Your task to perform on an android device: add a label to a message in the gmail app Image 0: 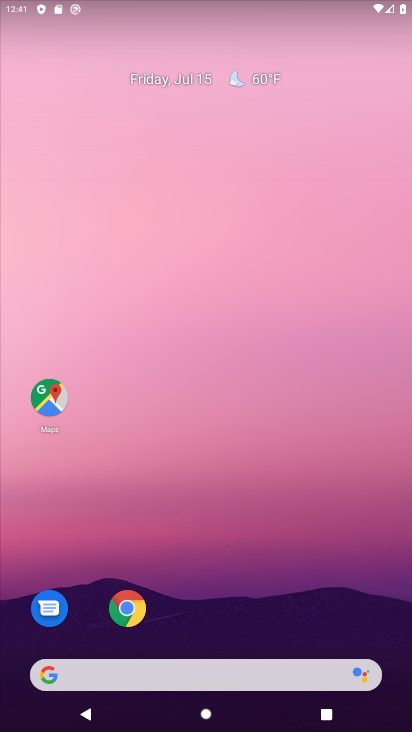
Step 0: drag from (285, 591) to (275, 65)
Your task to perform on an android device: add a label to a message in the gmail app Image 1: 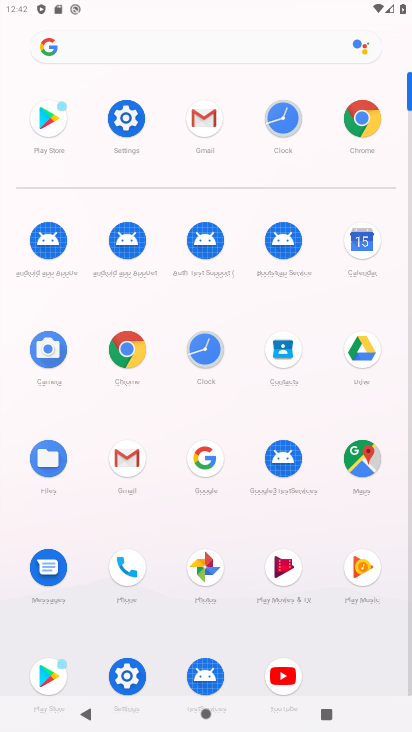
Step 1: click (124, 451)
Your task to perform on an android device: add a label to a message in the gmail app Image 2: 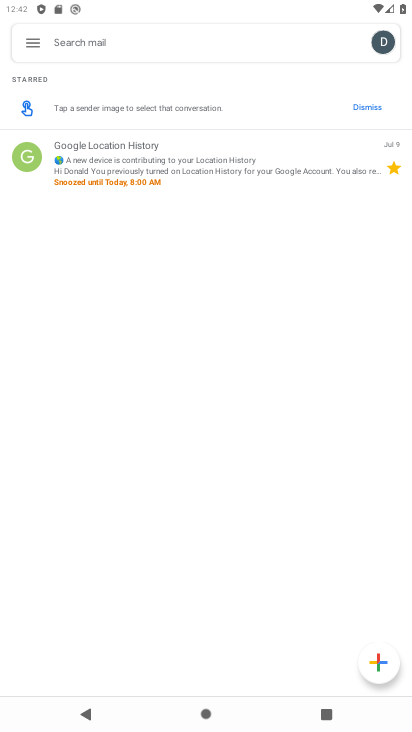
Step 2: task complete